Your task to perform on an android device: Open the calendar and show me this week's events Image 0: 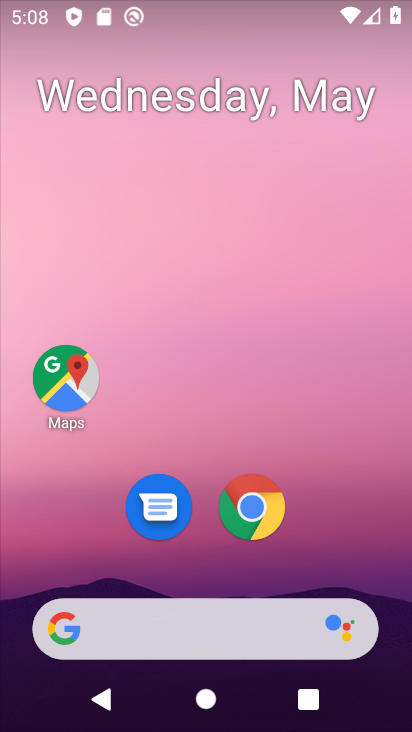
Step 0: drag from (330, 552) to (253, 139)
Your task to perform on an android device: Open the calendar and show me this week's events Image 1: 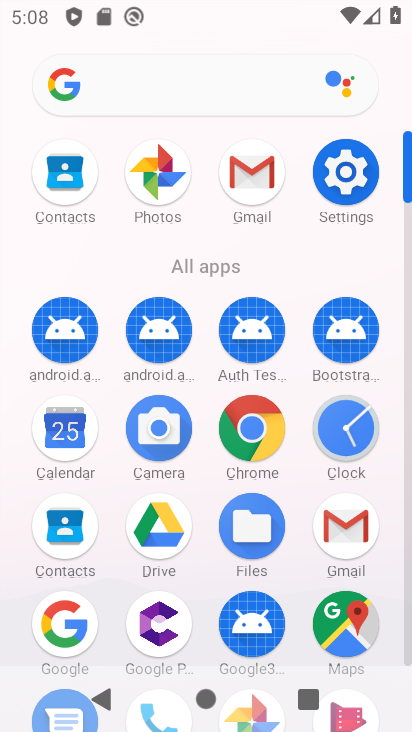
Step 1: click (67, 428)
Your task to perform on an android device: Open the calendar and show me this week's events Image 2: 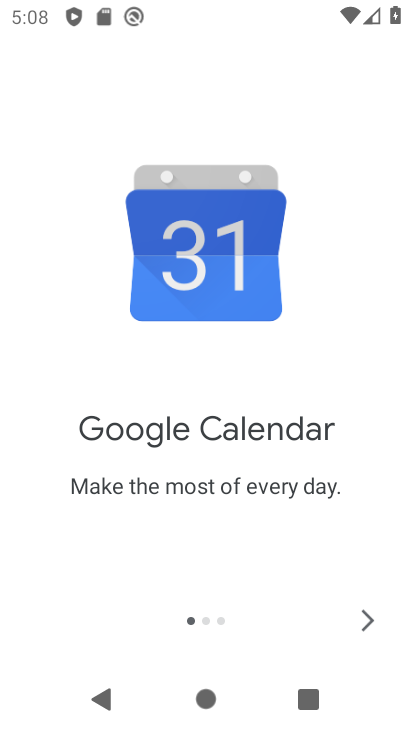
Step 2: click (372, 619)
Your task to perform on an android device: Open the calendar and show me this week's events Image 3: 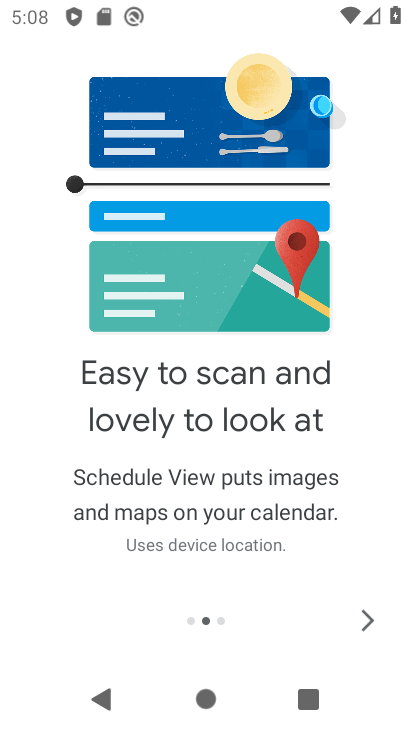
Step 3: click (372, 619)
Your task to perform on an android device: Open the calendar and show me this week's events Image 4: 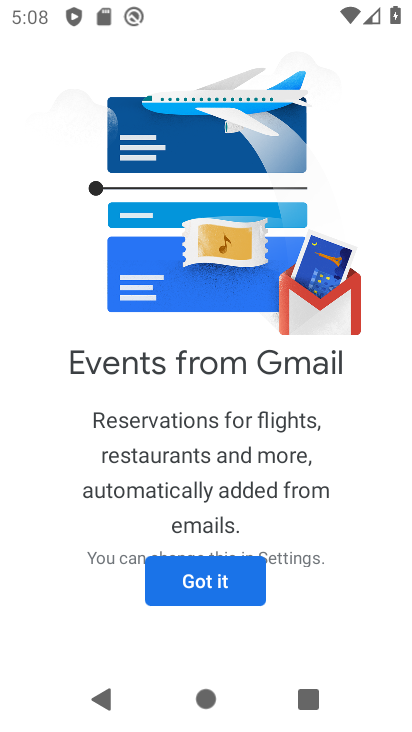
Step 4: click (198, 580)
Your task to perform on an android device: Open the calendar and show me this week's events Image 5: 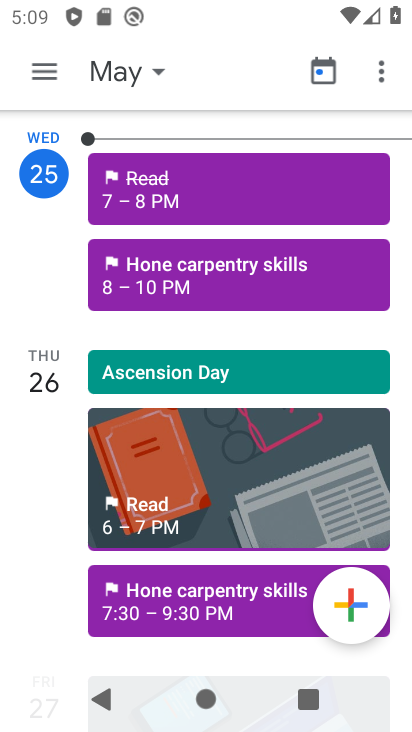
Step 5: click (324, 75)
Your task to perform on an android device: Open the calendar and show me this week's events Image 6: 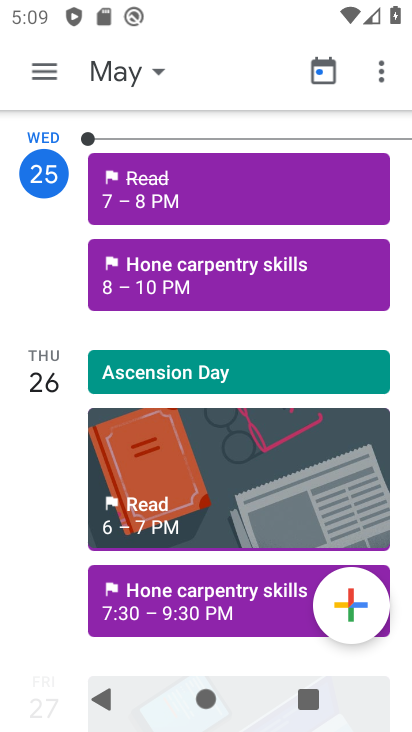
Step 6: task complete